Your task to perform on an android device: check the backup settings in the google photos Image 0: 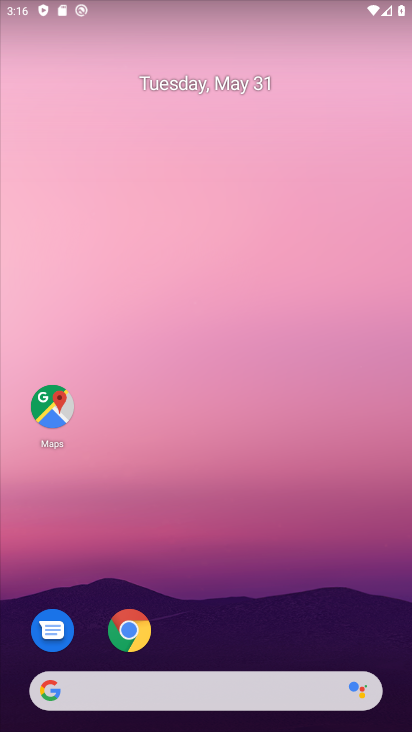
Step 0: drag from (215, 621) to (195, 278)
Your task to perform on an android device: check the backup settings in the google photos Image 1: 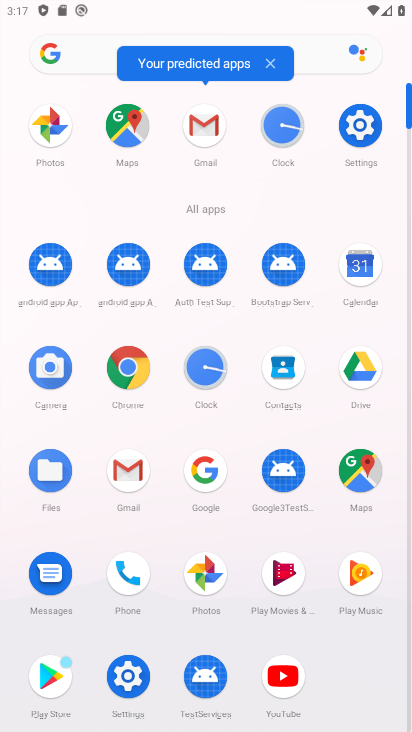
Step 1: click (50, 105)
Your task to perform on an android device: check the backup settings in the google photos Image 2: 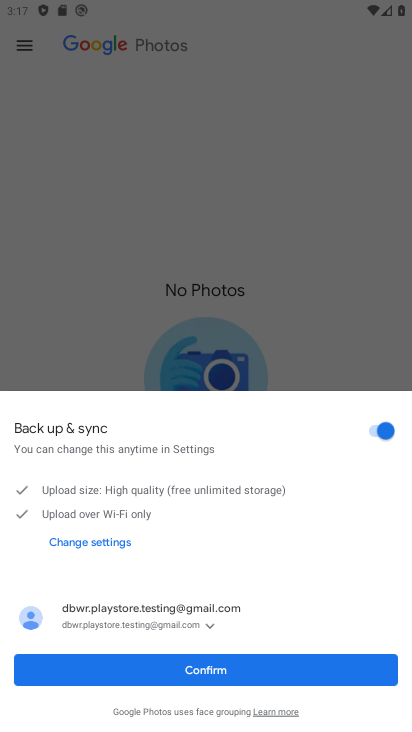
Step 2: click (247, 663)
Your task to perform on an android device: check the backup settings in the google photos Image 3: 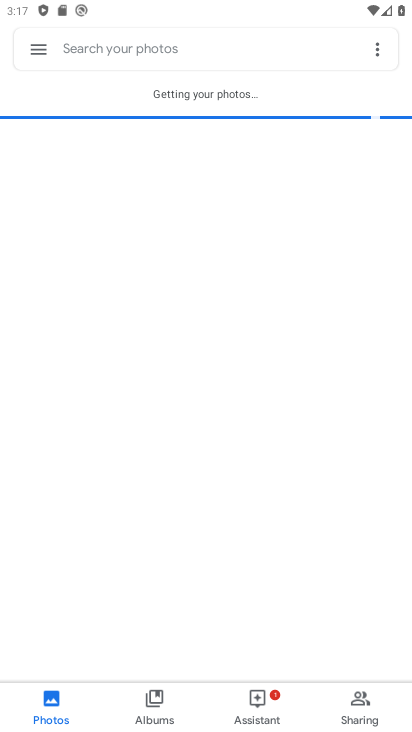
Step 3: click (37, 50)
Your task to perform on an android device: check the backup settings in the google photos Image 4: 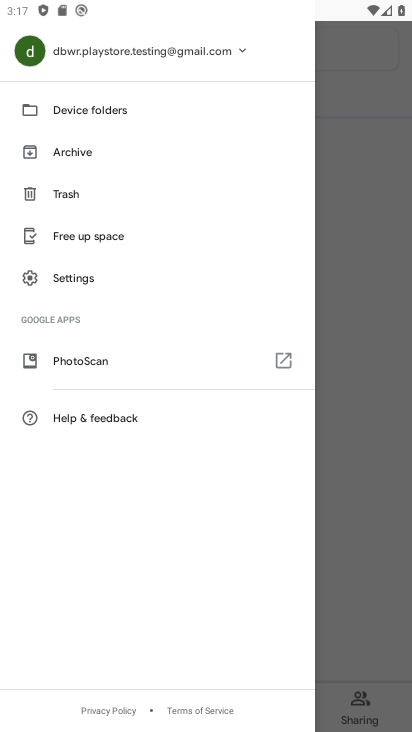
Step 4: click (86, 273)
Your task to perform on an android device: check the backup settings in the google photos Image 5: 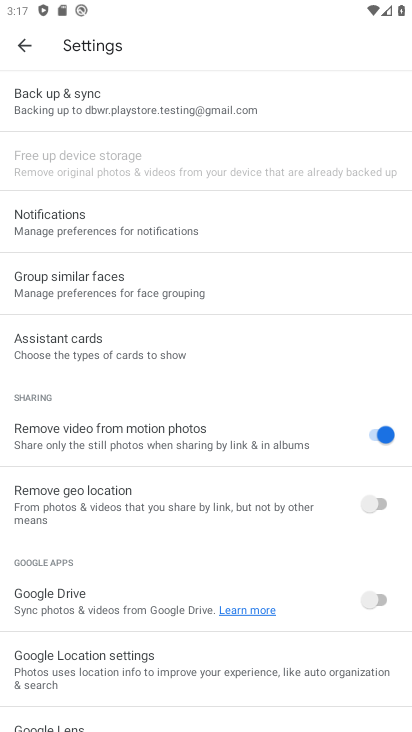
Step 5: click (131, 107)
Your task to perform on an android device: check the backup settings in the google photos Image 6: 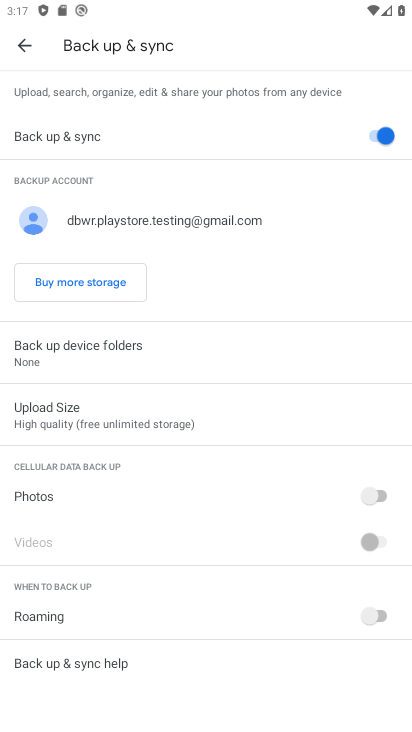
Step 6: task complete